Your task to perform on an android device: toggle show notifications on the lock screen Image 0: 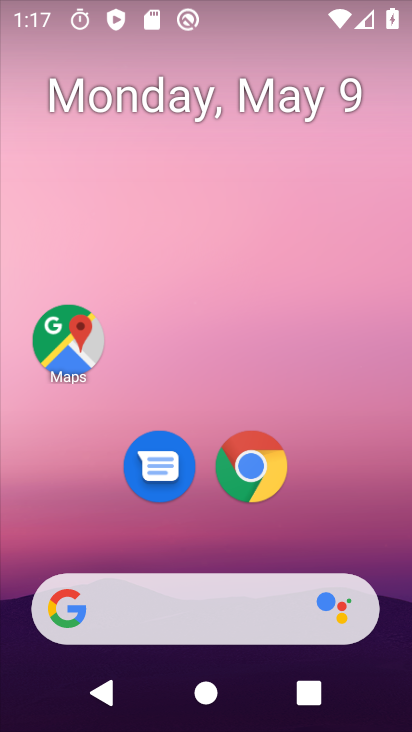
Step 0: drag from (275, 526) to (318, 268)
Your task to perform on an android device: toggle show notifications on the lock screen Image 1: 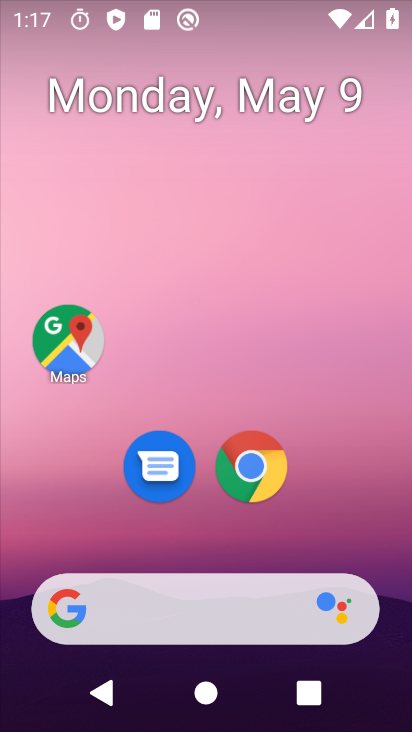
Step 1: drag from (260, 632) to (289, 328)
Your task to perform on an android device: toggle show notifications on the lock screen Image 2: 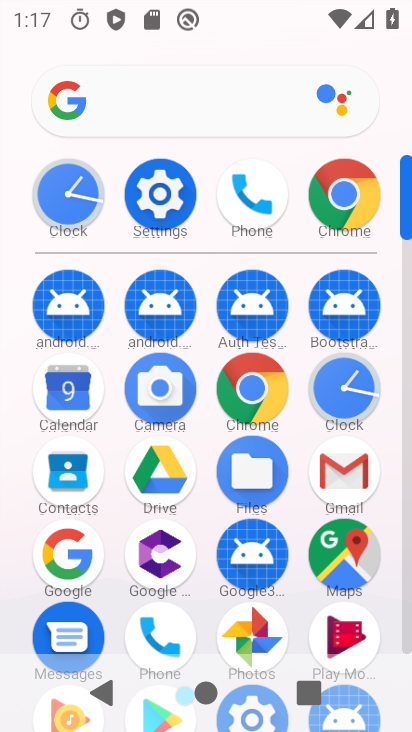
Step 2: click (158, 218)
Your task to perform on an android device: toggle show notifications on the lock screen Image 3: 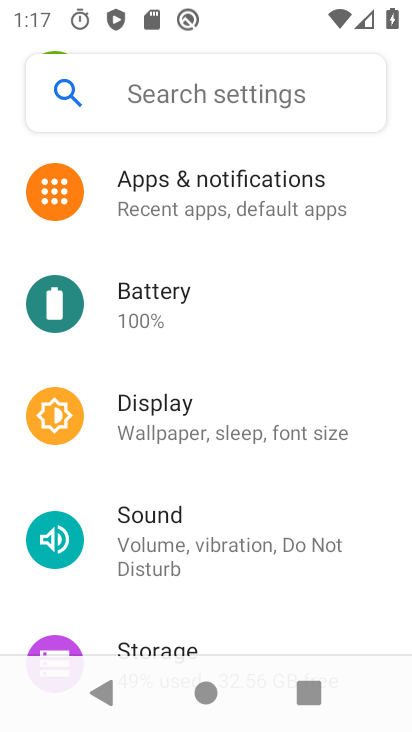
Step 3: click (158, 218)
Your task to perform on an android device: toggle show notifications on the lock screen Image 4: 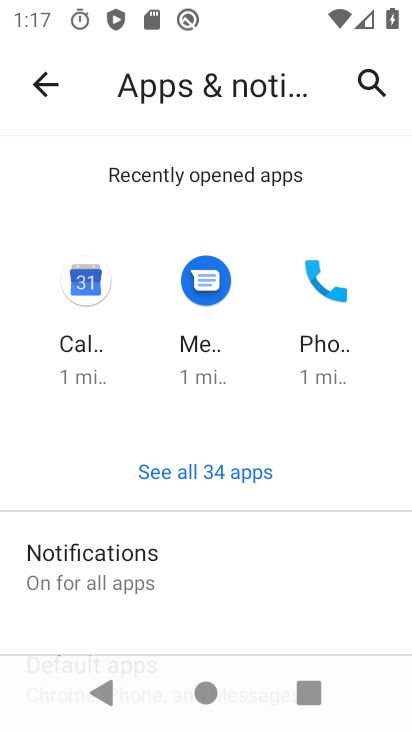
Step 4: click (96, 558)
Your task to perform on an android device: toggle show notifications on the lock screen Image 5: 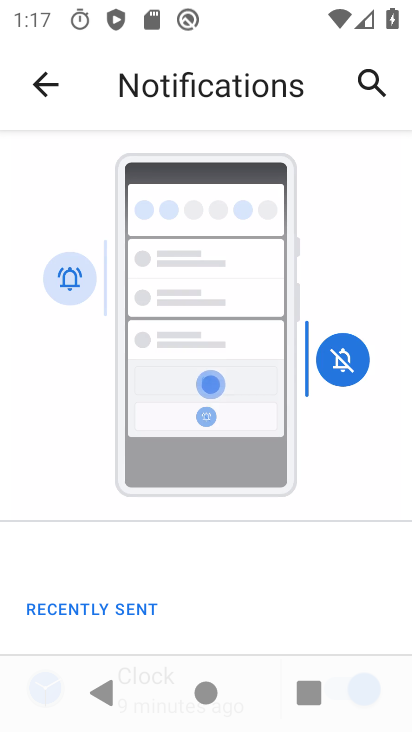
Step 5: drag from (96, 558) to (164, 263)
Your task to perform on an android device: toggle show notifications on the lock screen Image 6: 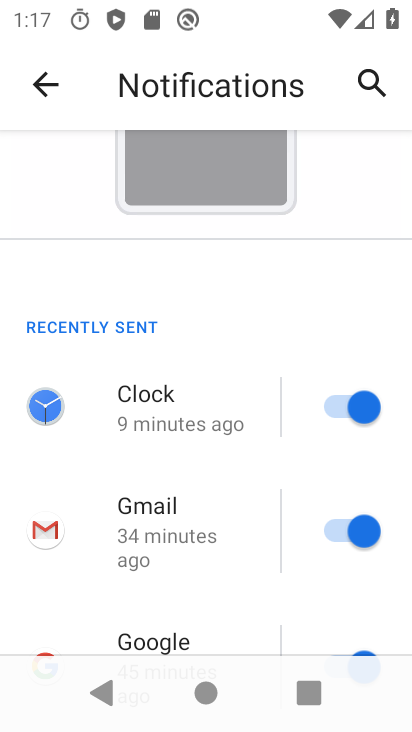
Step 6: drag from (133, 563) to (178, 355)
Your task to perform on an android device: toggle show notifications on the lock screen Image 7: 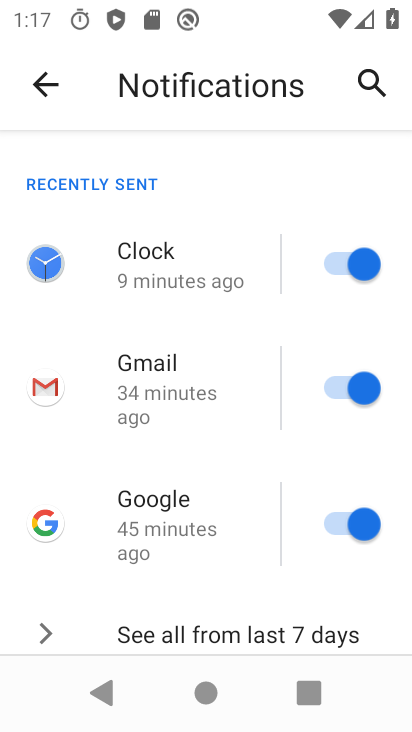
Step 7: drag from (155, 608) to (198, 355)
Your task to perform on an android device: toggle show notifications on the lock screen Image 8: 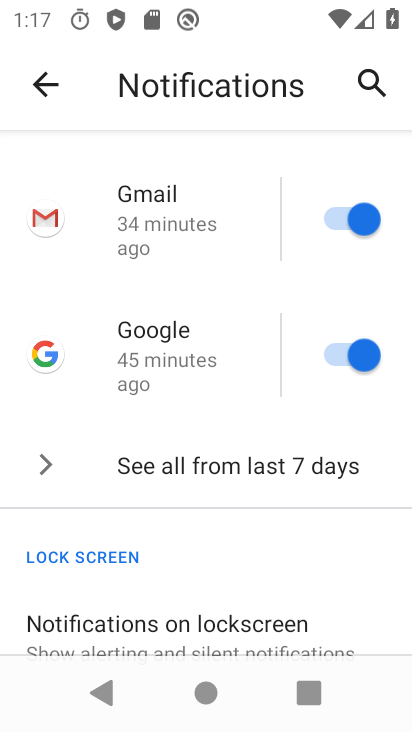
Step 8: drag from (168, 548) to (201, 286)
Your task to perform on an android device: toggle show notifications on the lock screen Image 9: 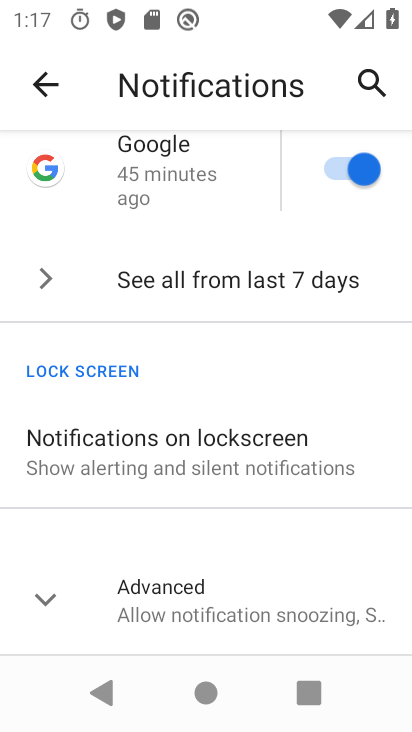
Step 9: click (148, 451)
Your task to perform on an android device: toggle show notifications on the lock screen Image 10: 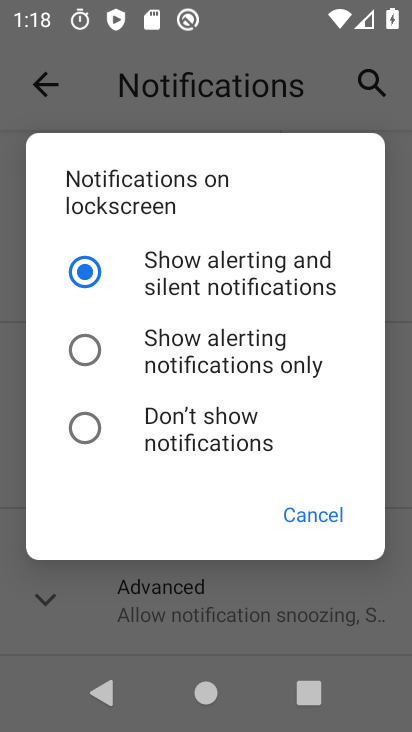
Step 10: click (106, 425)
Your task to perform on an android device: toggle show notifications on the lock screen Image 11: 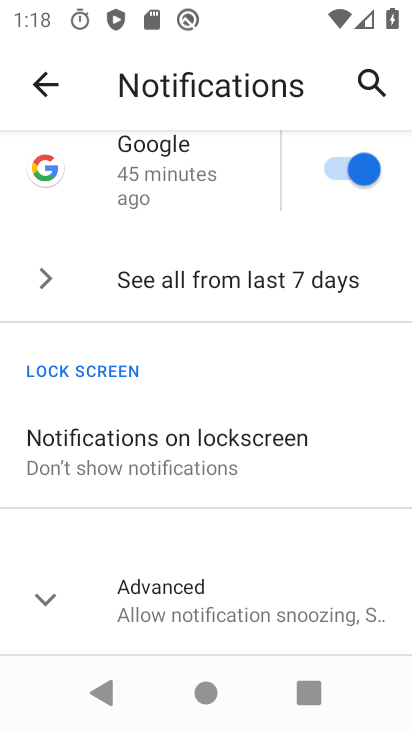
Step 11: task complete